Your task to perform on an android device: check google app version Image 0: 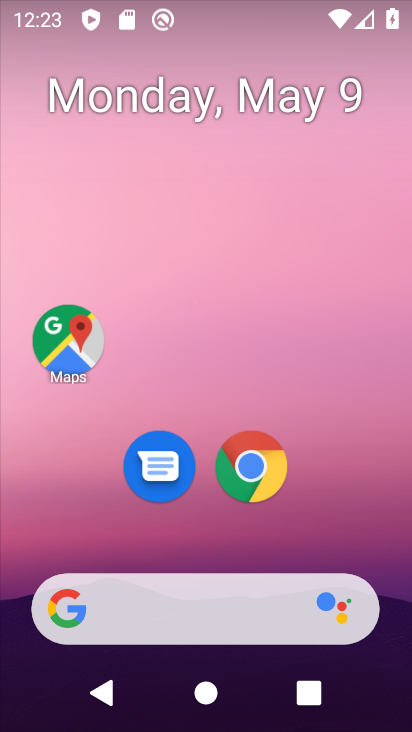
Step 0: drag from (252, 552) to (351, 236)
Your task to perform on an android device: check google app version Image 1: 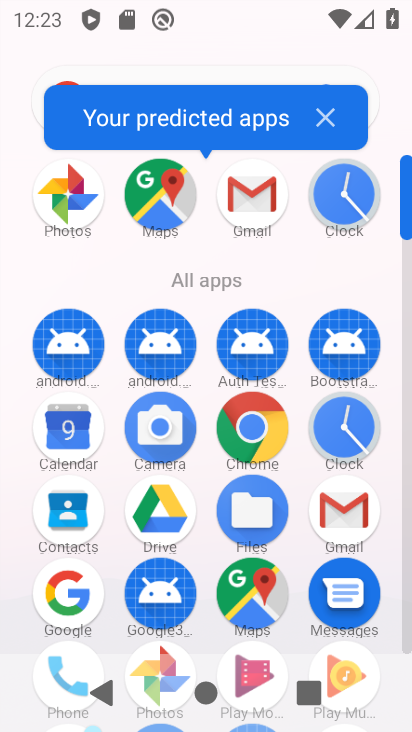
Step 1: drag from (194, 595) to (228, 427)
Your task to perform on an android device: check google app version Image 2: 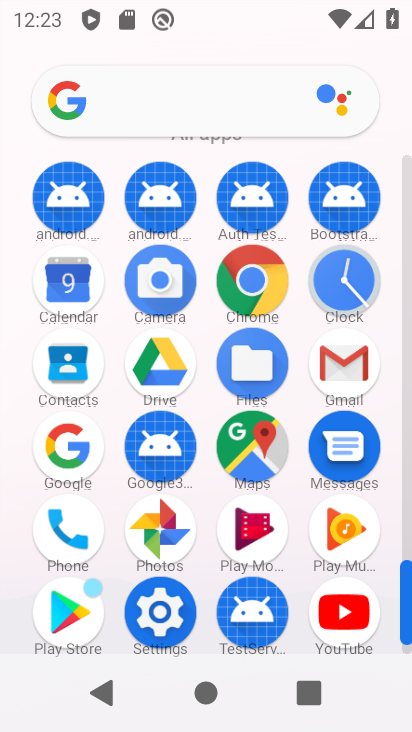
Step 2: click (174, 612)
Your task to perform on an android device: check google app version Image 3: 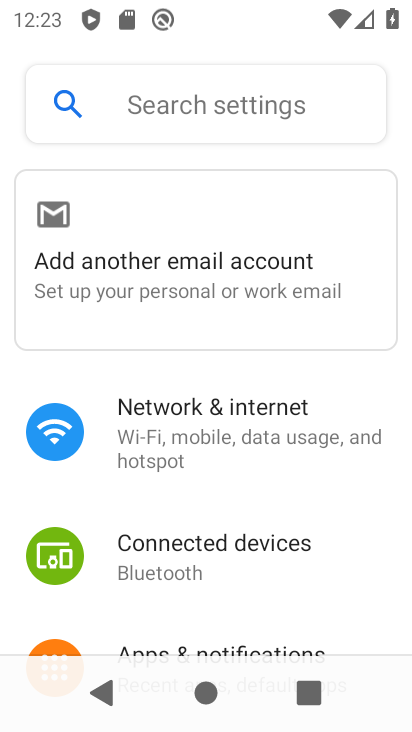
Step 3: drag from (227, 599) to (284, 408)
Your task to perform on an android device: check google app version Image 4: 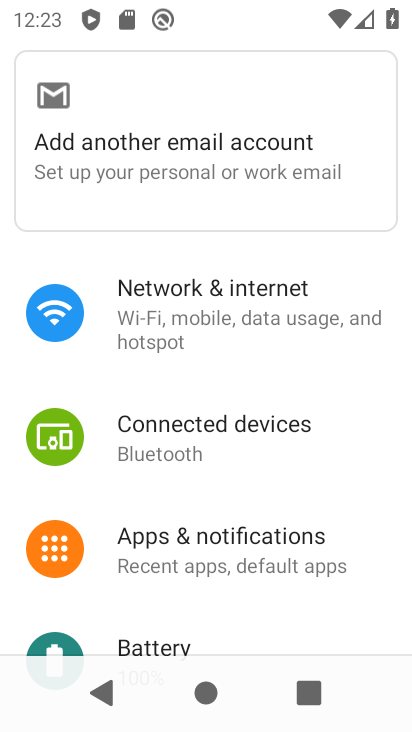
Step 4: click (235, 539)
Your task to perform on an android device: check google app version Image 5: 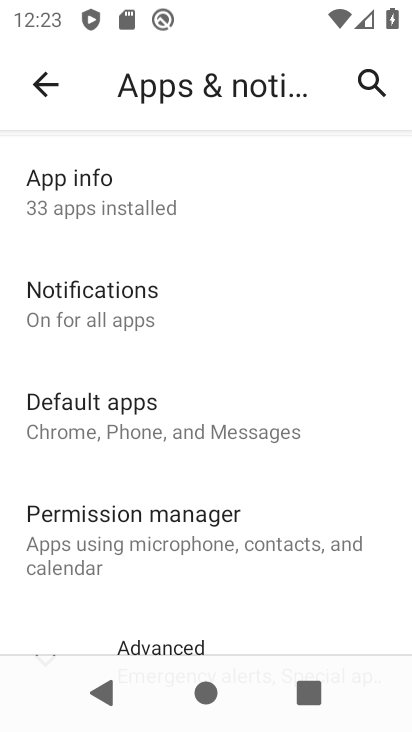
Step 5: click (216, 573)
Your task to perform on an android device: check google app version Image 6: 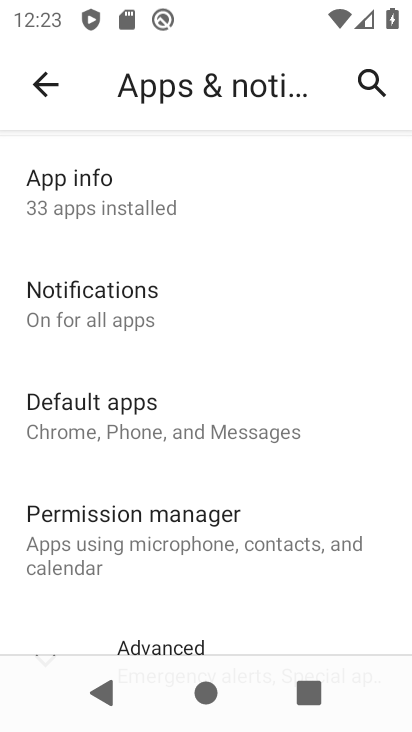
Step 6: click (249, 195)
Your task to perform on an android device: check google app version Image 7: 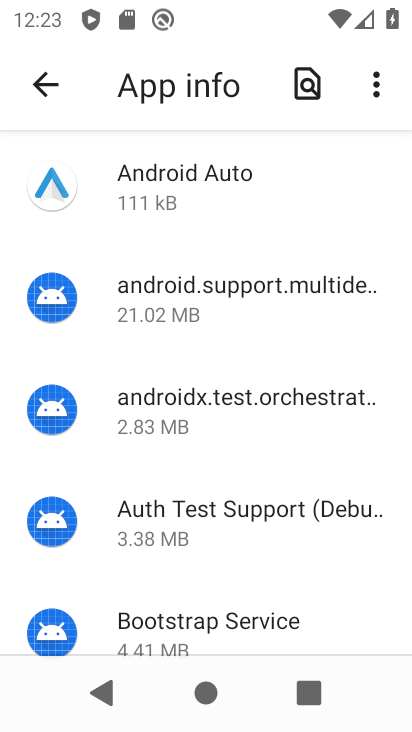
Step 7: drag from (271, 572) to (339, 374)
Your task to perform on an android device: check google app version Image 8: 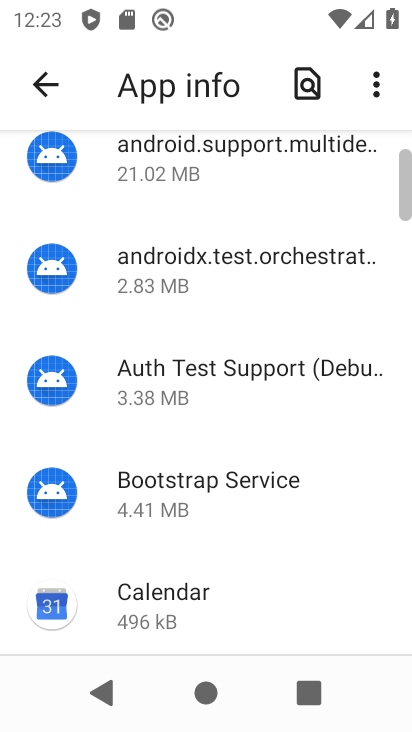
Step 8: drag from (278, 613) to (344, 318)
Your task to perform on an android device: check google app version Image 9: 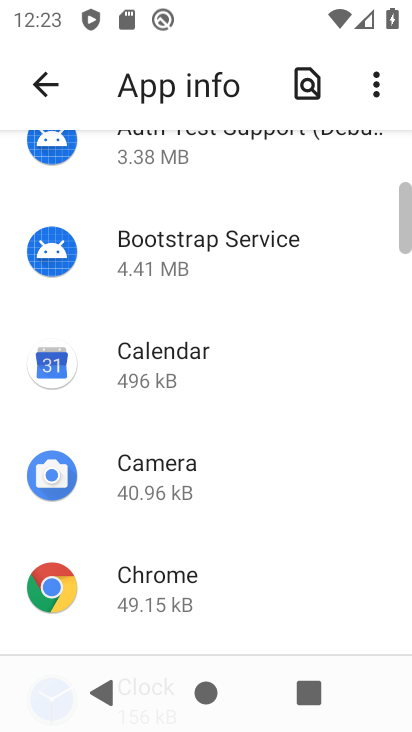
Step 9: drag from (265, 611) to (324, 422)
Your task to perform on an android device: check google app version Image 10: 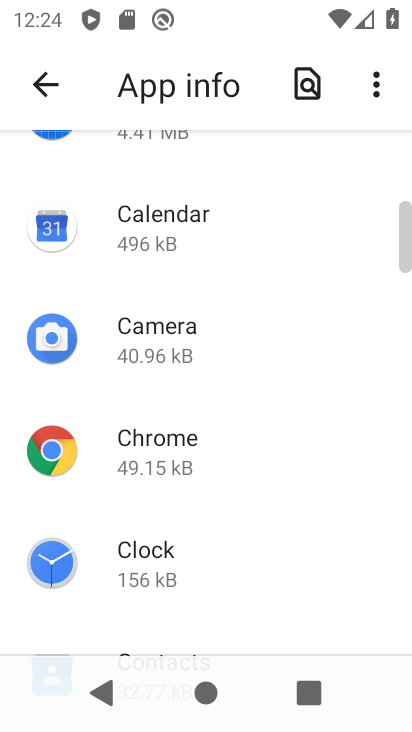
Step 10: drag from (266, 588) to (296, 301)
Your task to perform on an android device: check google app version Image 11: 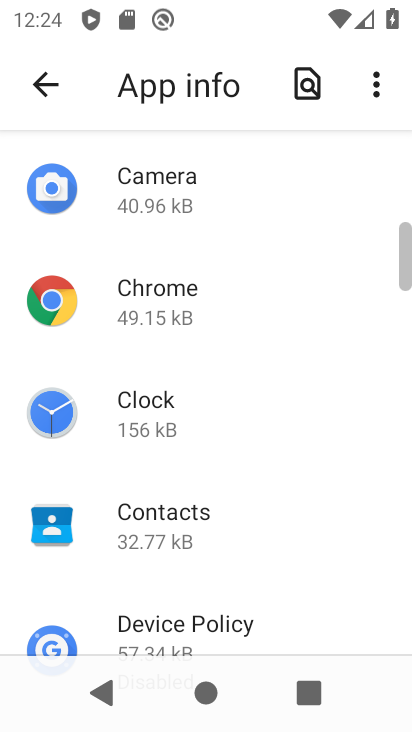
Step 11: drag from (228, 578) to (332, 245)
Your task to perform on an android device: check google app version Image 12: 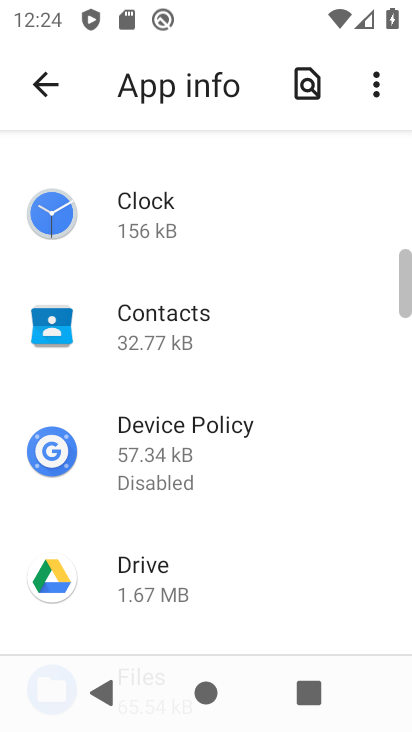
Step 12: drag from (275, 625) to (341, 318)
Your task to perform on an android device: check google app version Image 13: 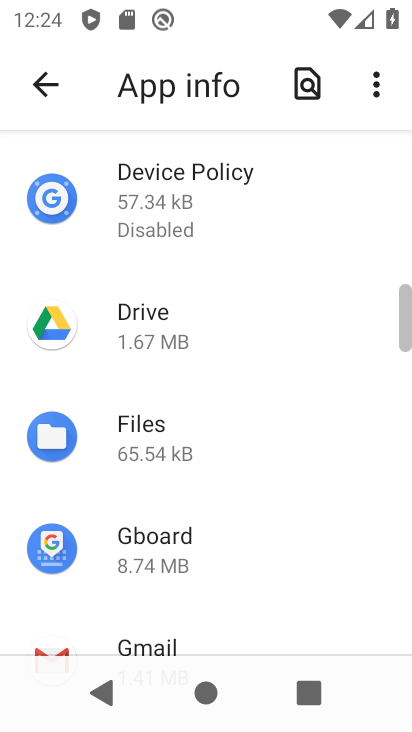
Step 13: drag from (283, 587) to (344, 367)
Your task to perform on an android device: check google app version Image 14: 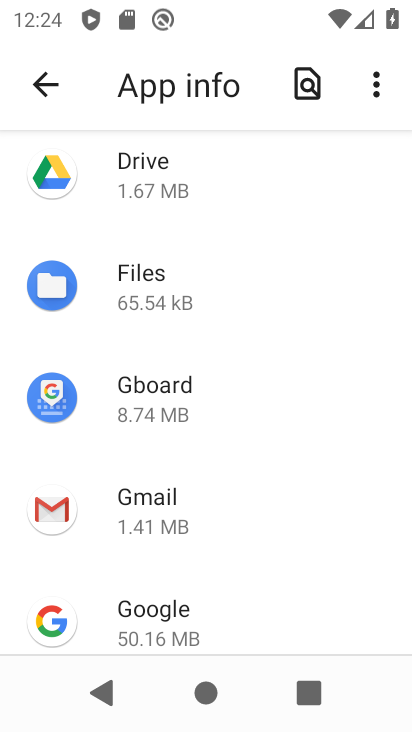
Step 14: click (217, 625)
Your task to perform on an android device: check google app version Image 15: 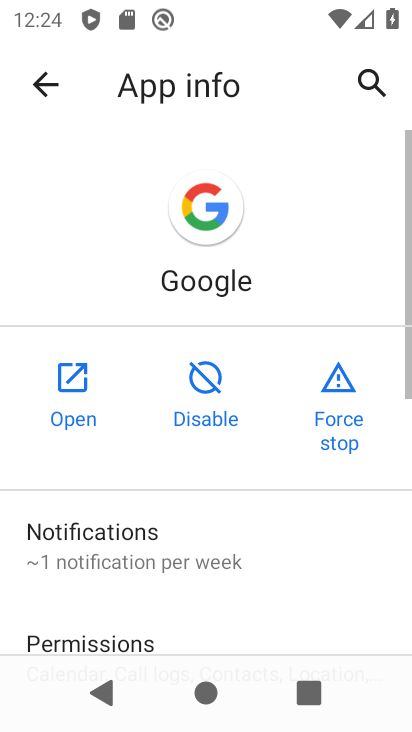
Step 15: drag from (217, 625) to (244, 465)
Your task to perform on an android device: check google app version Image 16: 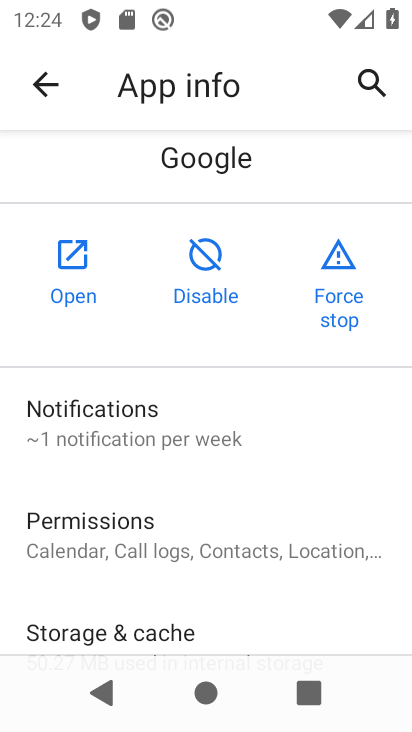
Step 16: drag from (213, 642) to (278, 478)
Your task to perform on an android device: check google app version Image 17: 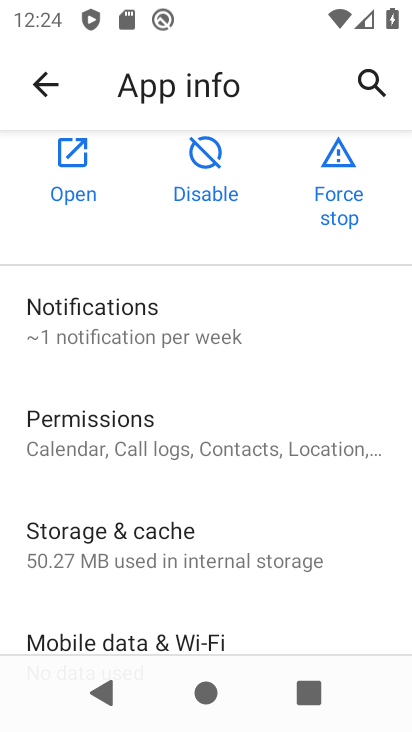
Step 17: drag from (249, 609) to (302, 409)
Your task to perform on an android device: check google app version Image 18: 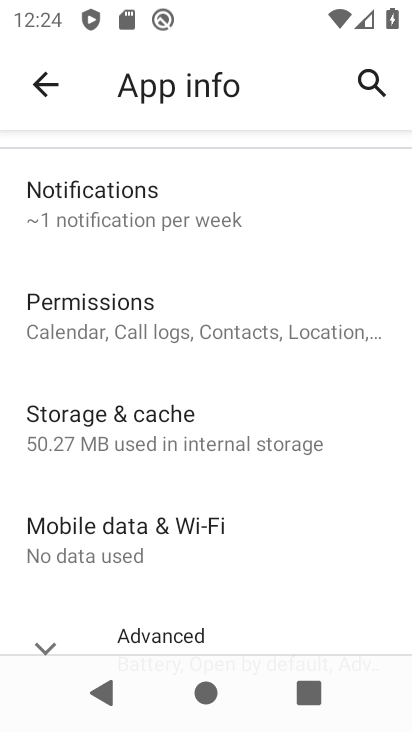
Step 18: drag from (264, 607) to (296, 503)
Your task to perform on an android device: check google app version Image 19: 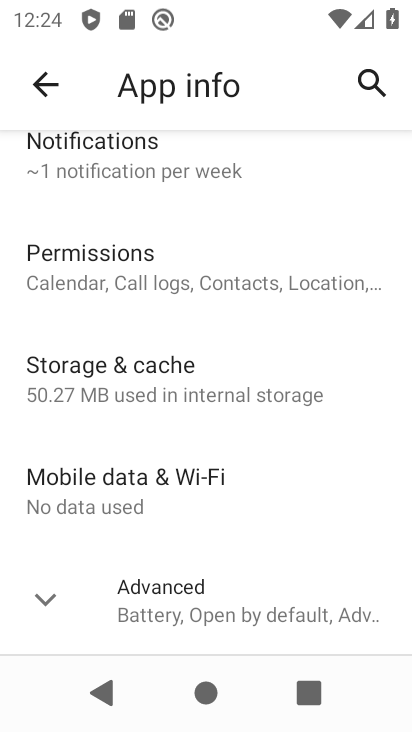
Step 19: drag from (244, 605) to (318, 382)
Your task to perform on an android device: check google app version Image 20: 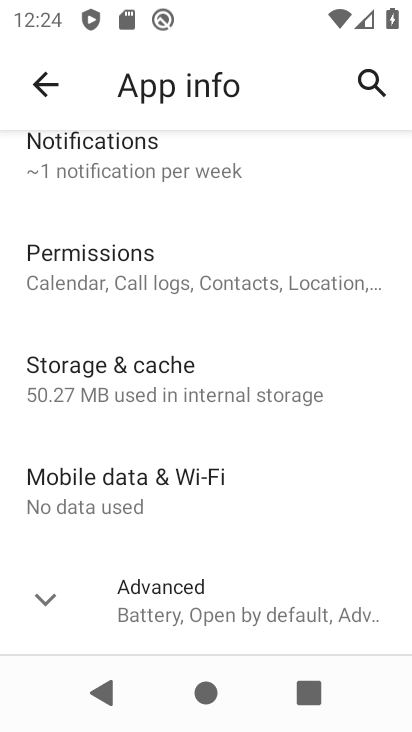
Step 20: click (284, 601)
Your task to perform on an android device: check google app version Image 21: 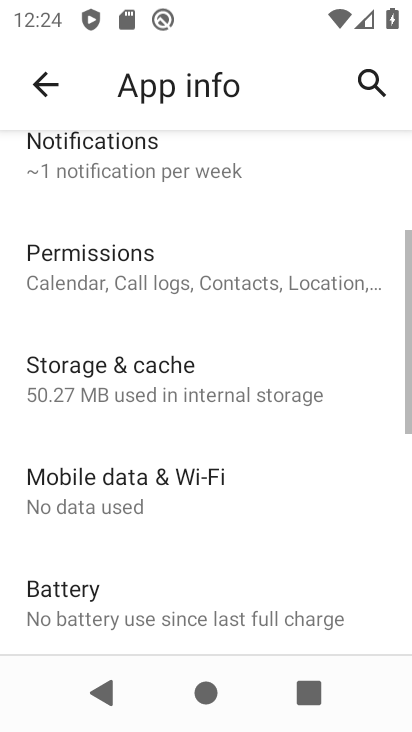
Step 21: task complete